Your task to perform on an android device: turn on bluetooth scan Image 0: 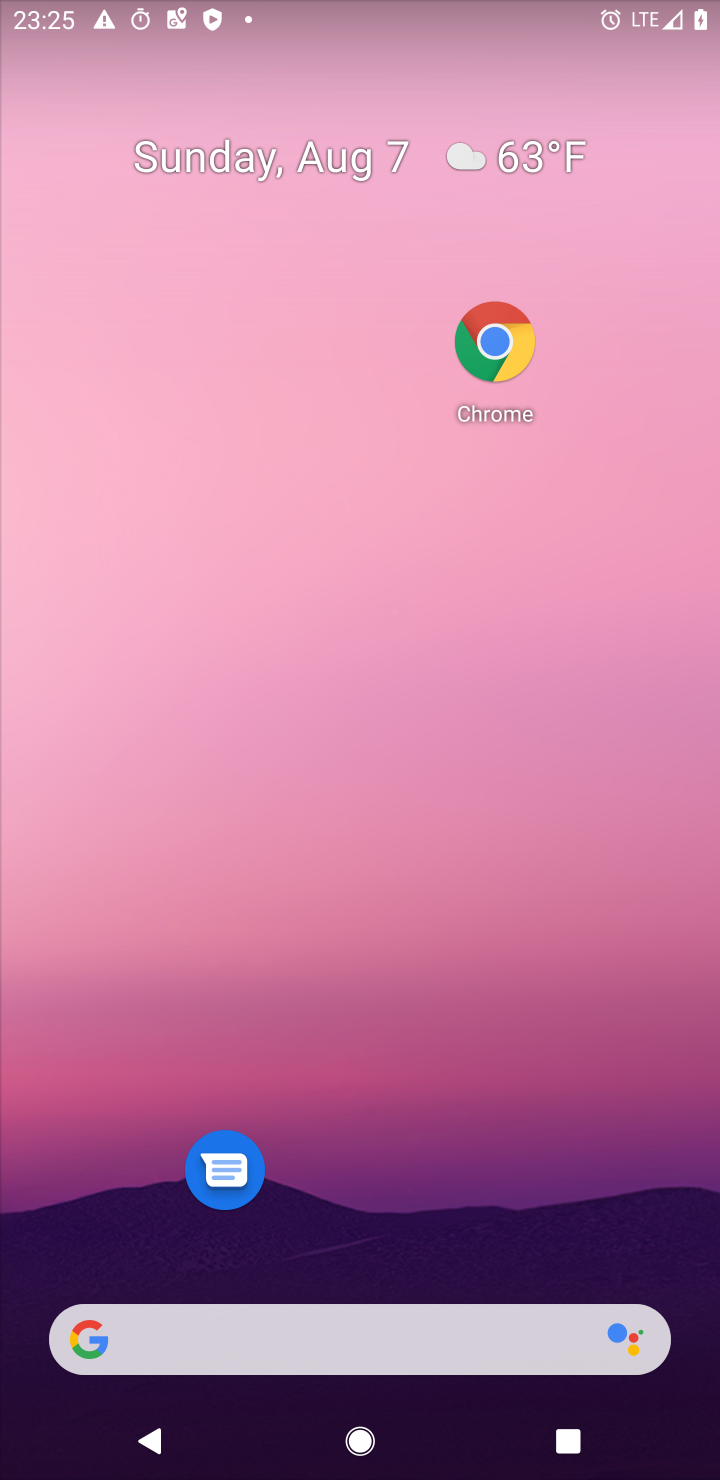
Step 0: drag from (303, 1325) to (448, 384)
Your task to perform on an android device: turn on bluetooth scan Image 1: 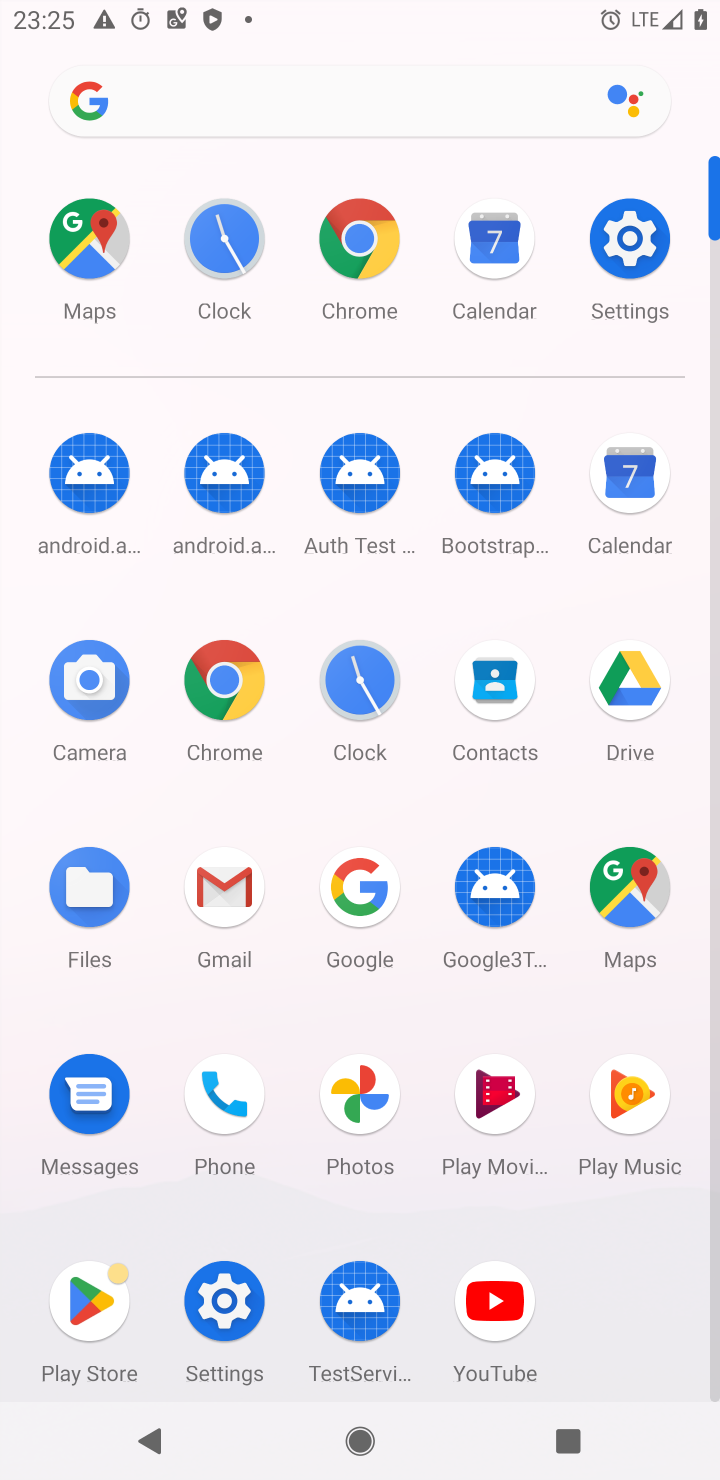
Step 1: click (632, 244)
Your task to perform on an android device: turn on bluetooth scan Image 2: 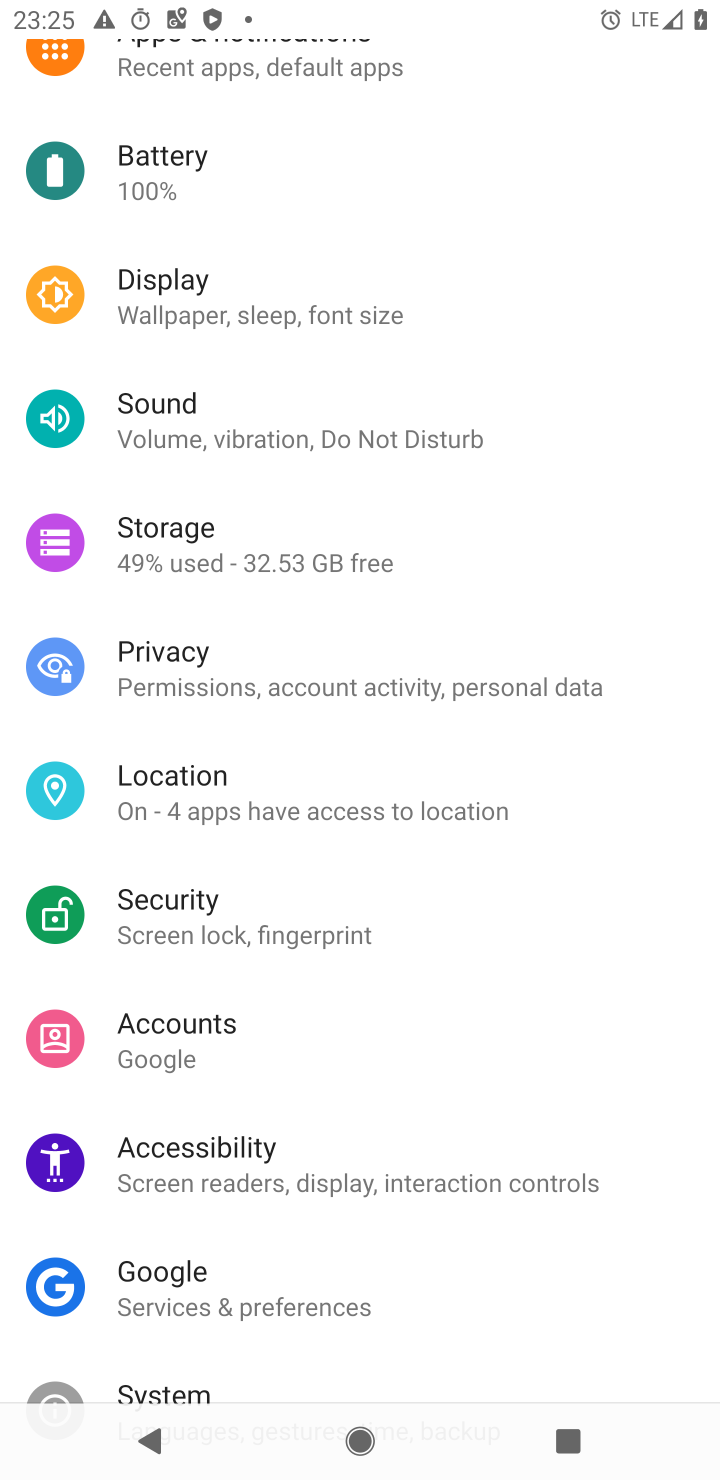
Step 2: click (238, 798)
Your task to perform on an android device: turn on bluetooth scan Image 3: 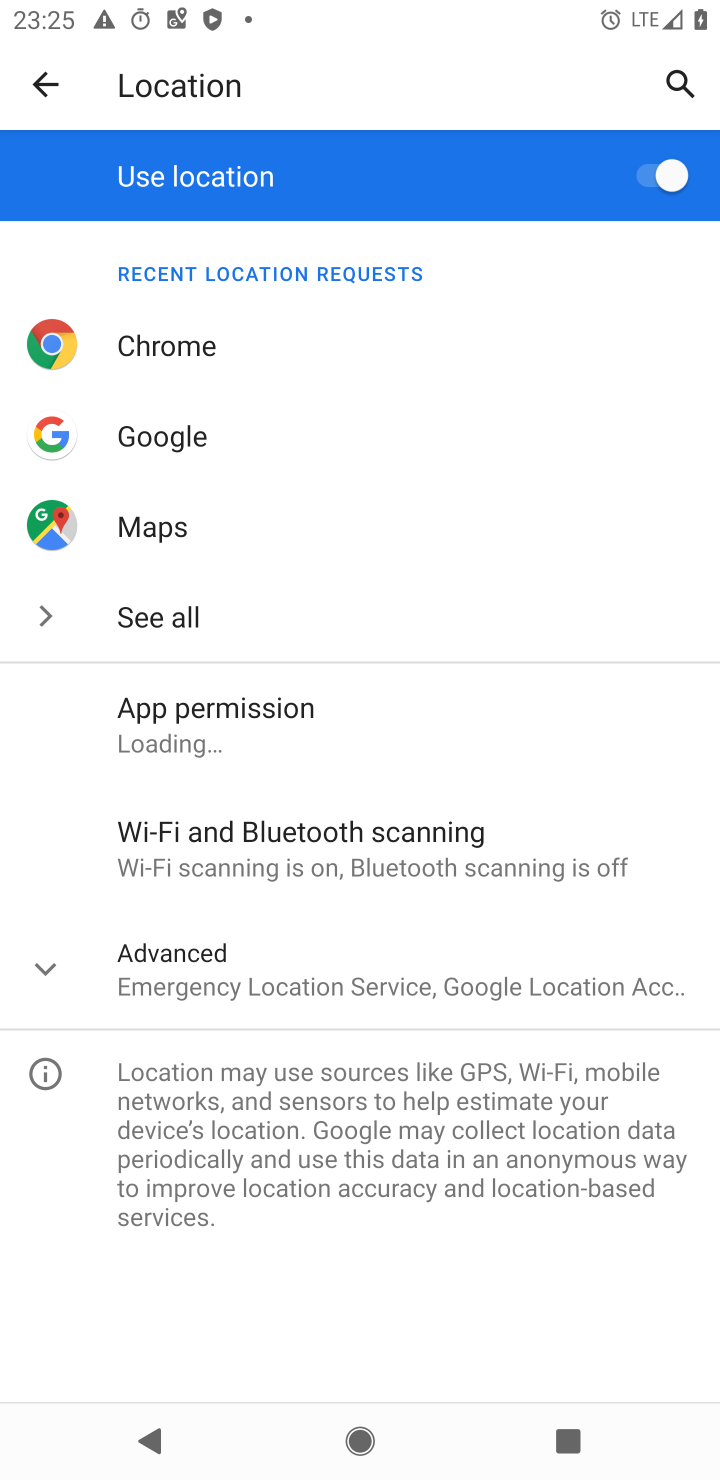
Step 3: click (287, 834)
Your task to perform on an android device: turn on bluetooth scan Image 4: 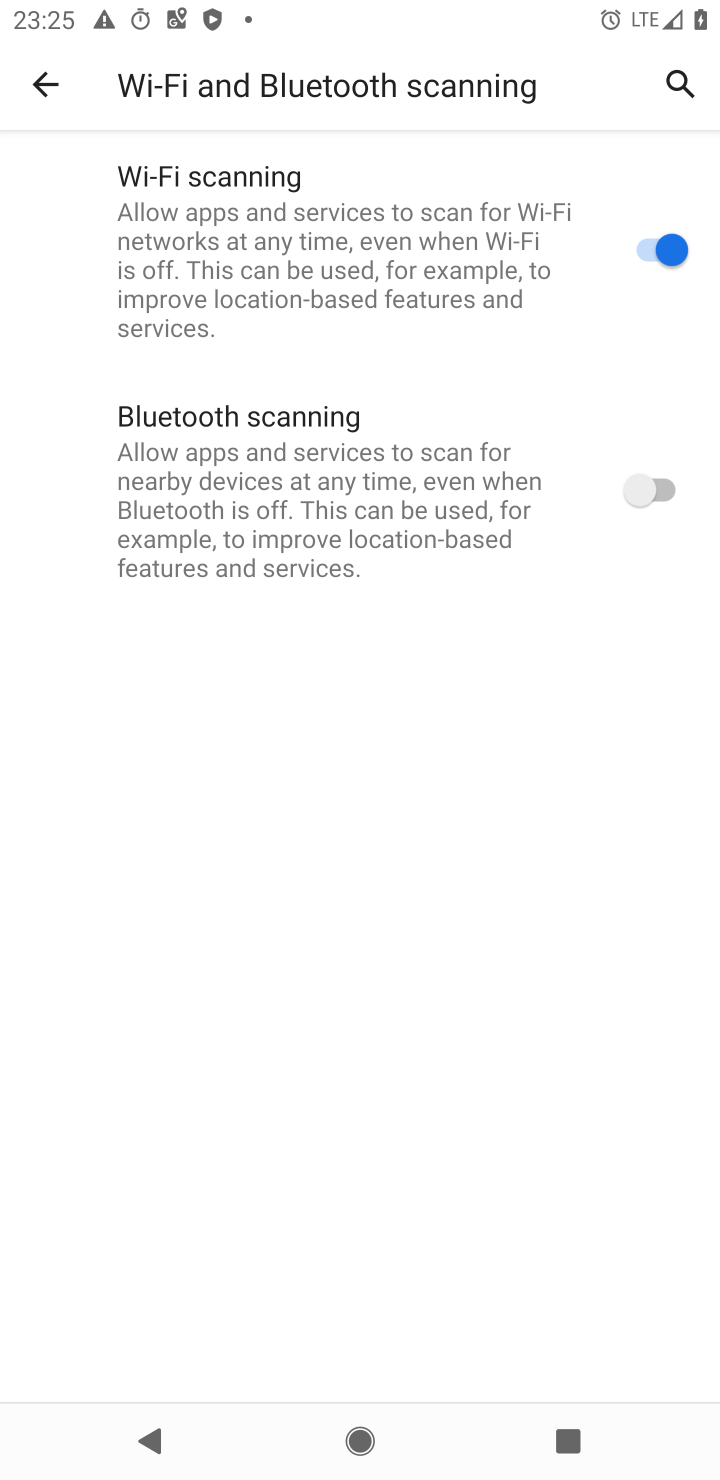
Step 4: click (659, 472)
Your task to perform on an android device: turn on bluetooth scan Image 5: 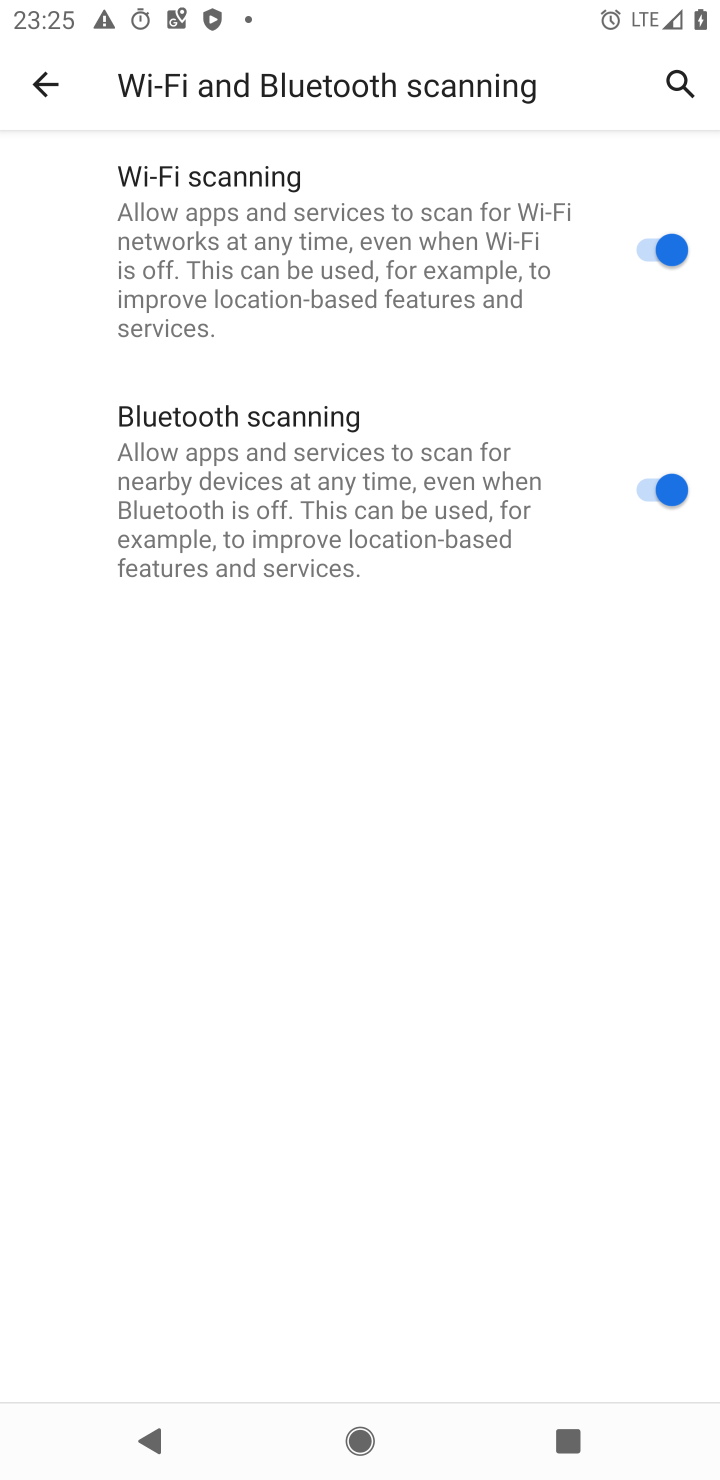
Step 5: task complete